Your task to perform on an android device: Go to calendar. Show me events next week Image 0: 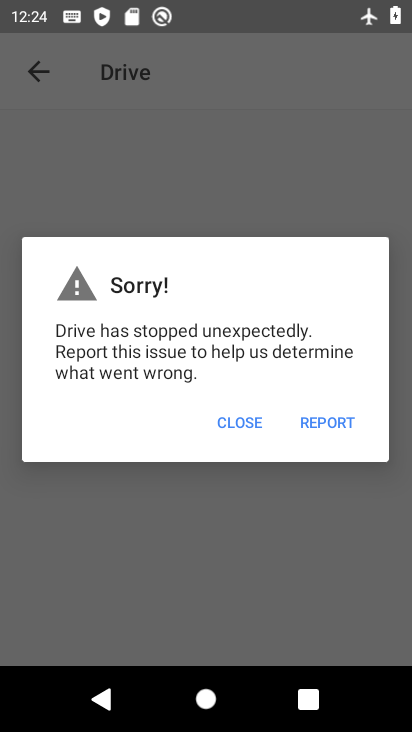
Step 0: press home button
Your task to perform on an android device: Go to calendar. Show me events next week Image 1: 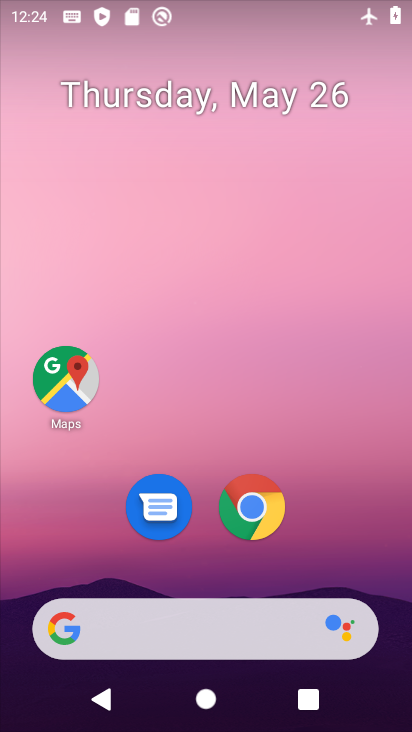
Step 1: drag from (203, 586) to (223, 180)
Your task to perform on an android device: Go to calendar. Show me events next week Image 2: 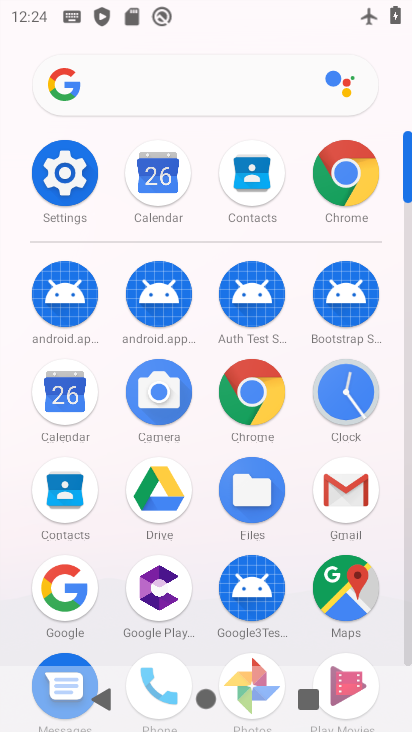
Step 2: click (174, 184)
Your task to perform on an android device: Go to calendar. Show me events next week Image 3: 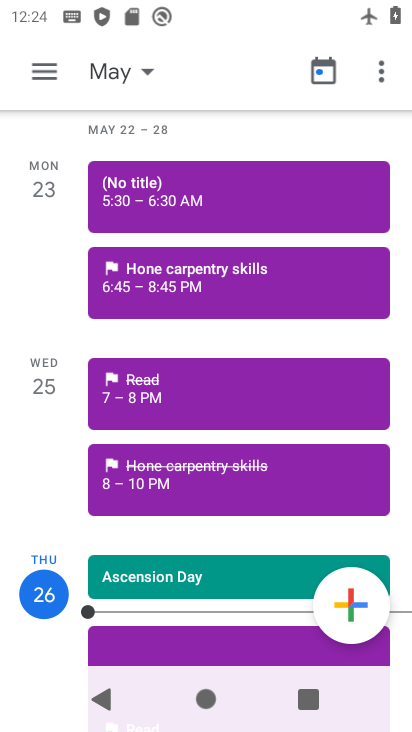
Step 3: click (137, 78)
Your task to perform on an android device: Go to calendar. Show me events next week Image 4: 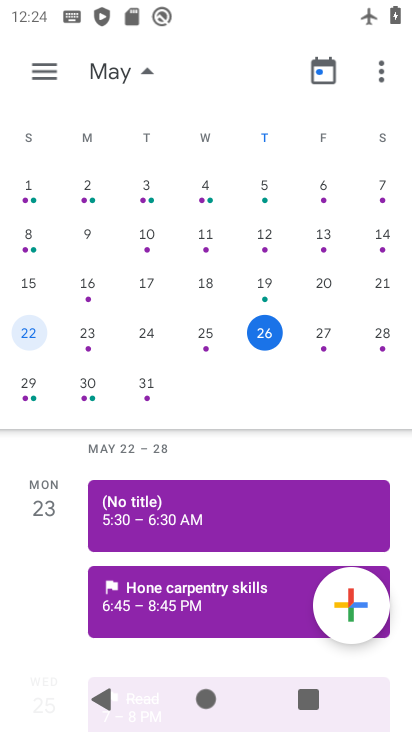
Step 4: click (22, 385)
Your task to perform on an android device: Go to calendar. Show me events next week Image 5: 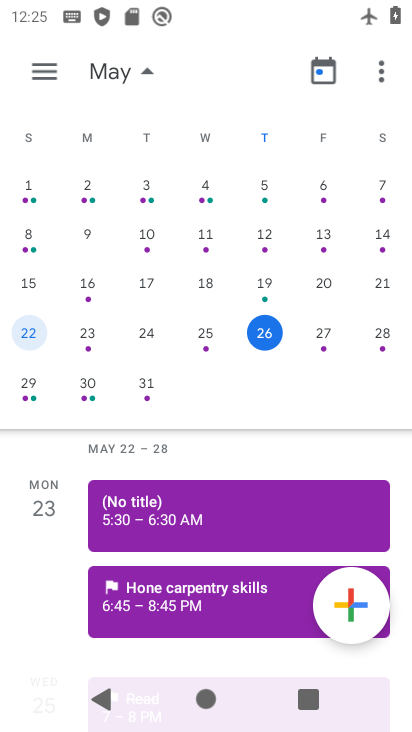
Step 5: click (19, 393)
Your task to perform on an android device: Go to calendar. Show me events next week Image 6: 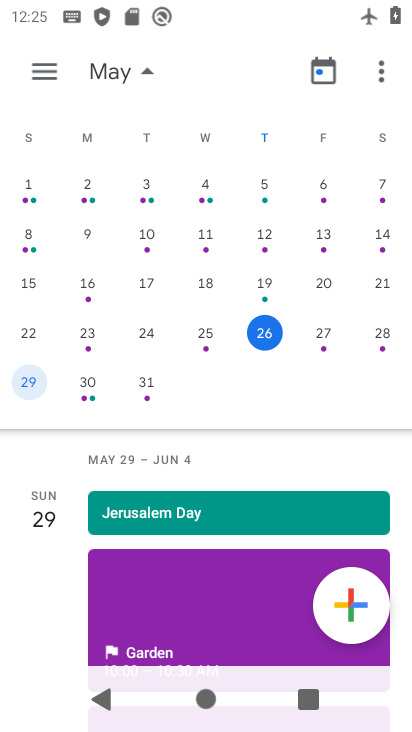
Step 6: task complete